Your task to perform on an android device: empty trash in google photos Image 0: 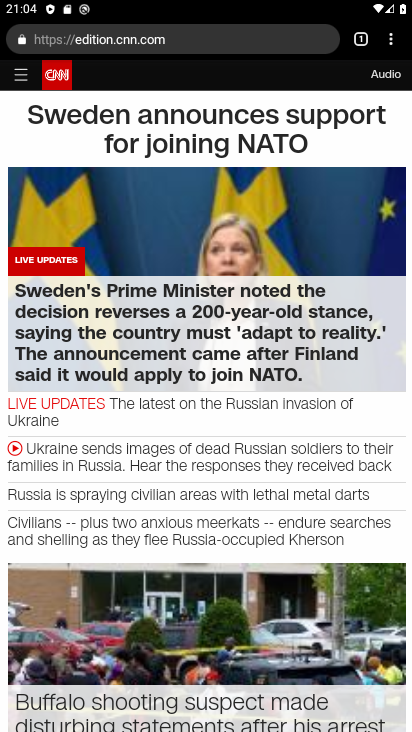
Step 0: click (392, 35)
Your task to perform on an android device: empty trash in google photos Image 1: 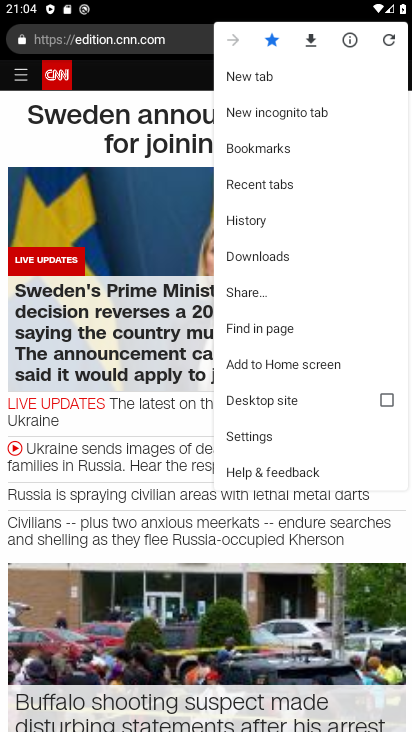
Step 1: click (139, 83)
Your task to perform on an android device: empty trash in google photos Image 2: 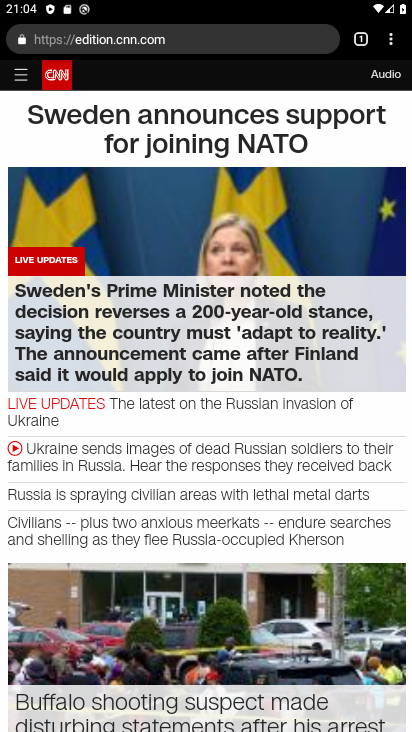
Step 2: press back button
Your task to perform on an android device: empty trash in google photos Image 3: 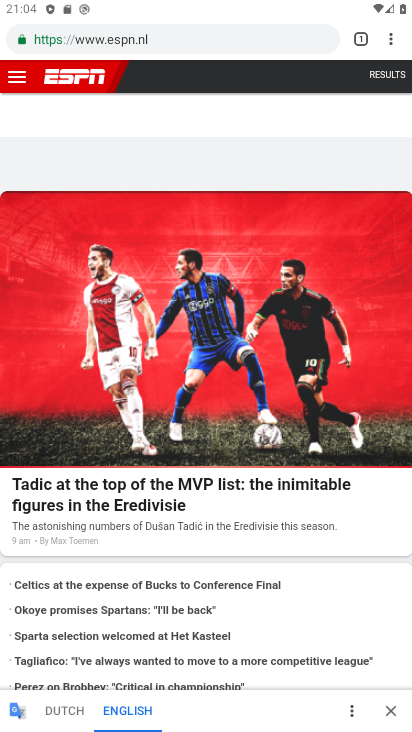
Step 3: press home button
Your task to perform on an android device: empty trash in google photos Image 4: 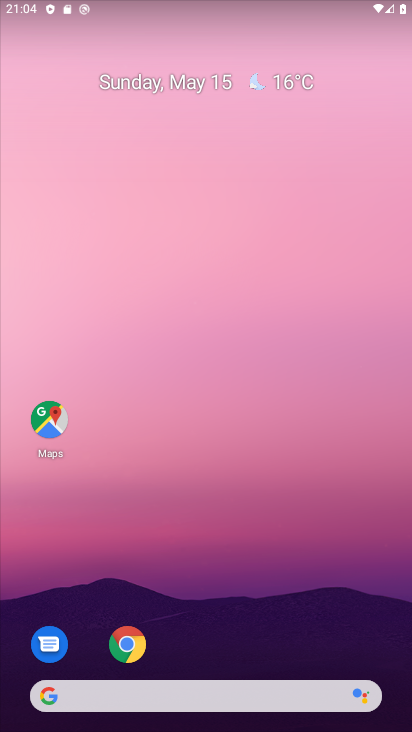
Step 4: drag from (203, 628) to (246, 84)
Your task to perform on an android device: empty trash in google photos Image 5: 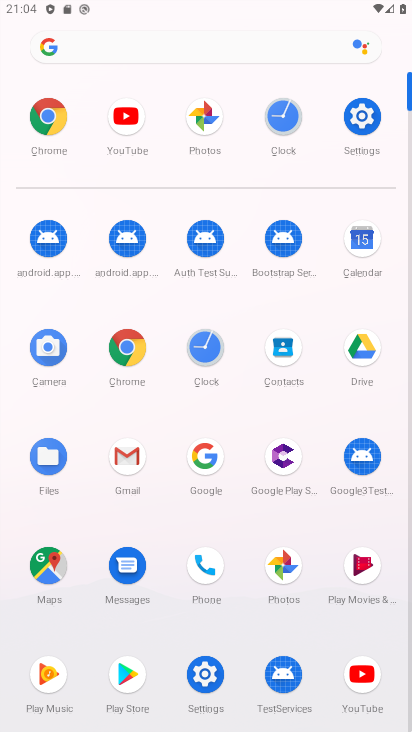
Step 5: click (282, 568)
Your task to perform on an android device: empty trash in google photos Image 6: 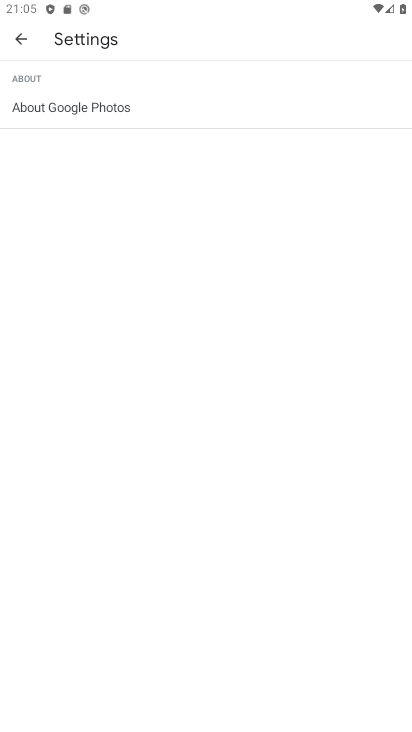
Step 6: click (5, 29)
Your task to perform on an android device: empty trash in google photos Image 7: 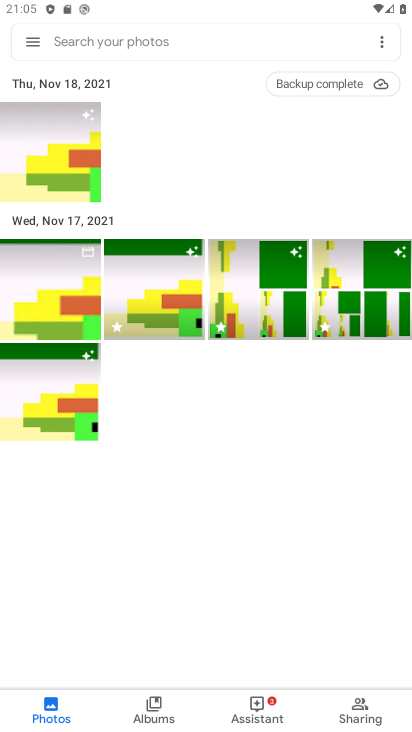
Step 7: click (24, 35)
Your task to perform on an android device: empty trash in google photos Image 8: 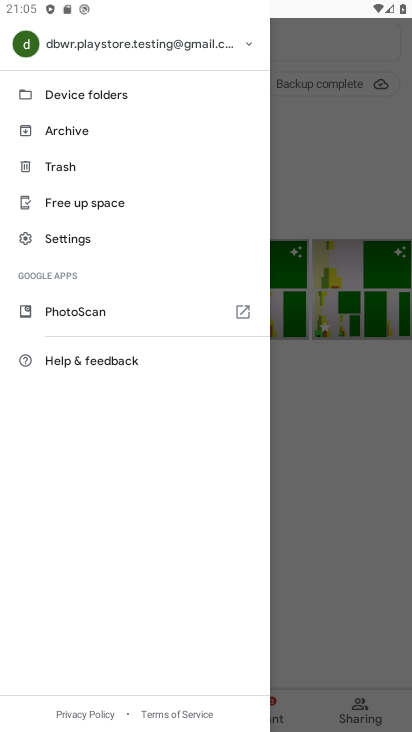
Step 8: click (58, 166)
Your task to perform on an android device: empty trash in google photos Image 9: 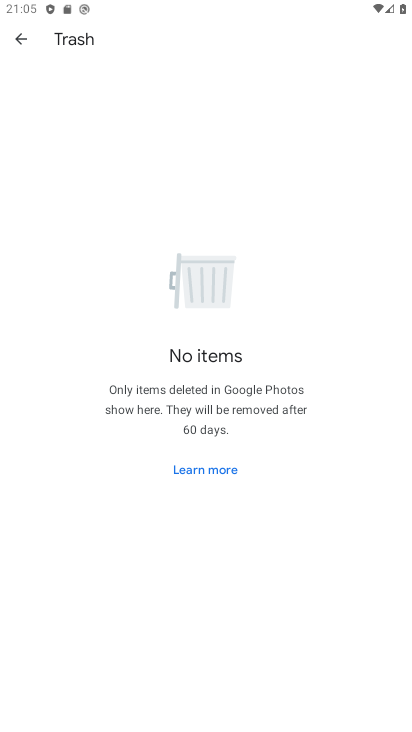
Step 9: task complete